Your task to perform on an android device: Clear the cart on target.com. Add "asus rog" to the cart on target.com Image 0: 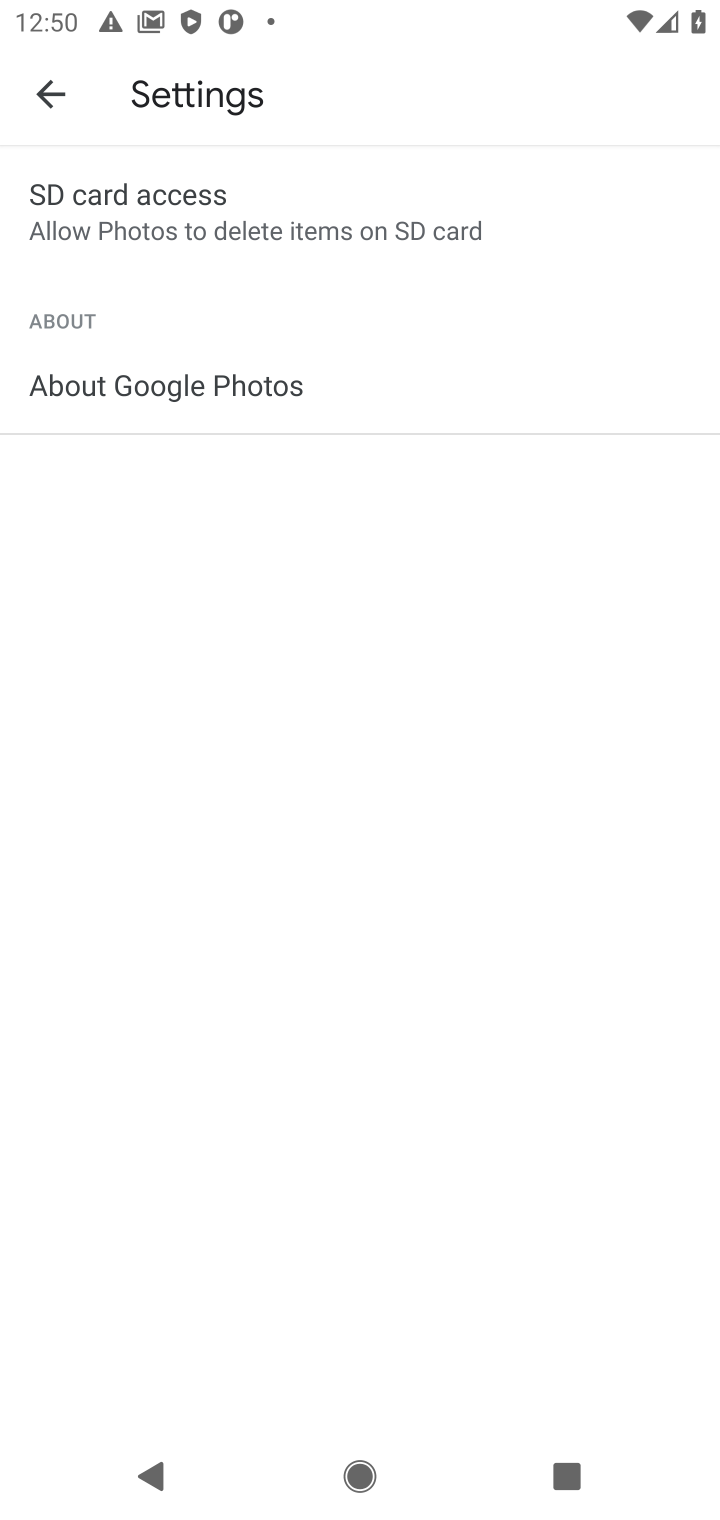
Step 0: press home button
Your task to perform on an android device: Clear the cart on target.com. Add "asus rog" to the cart on target.com Image 1: 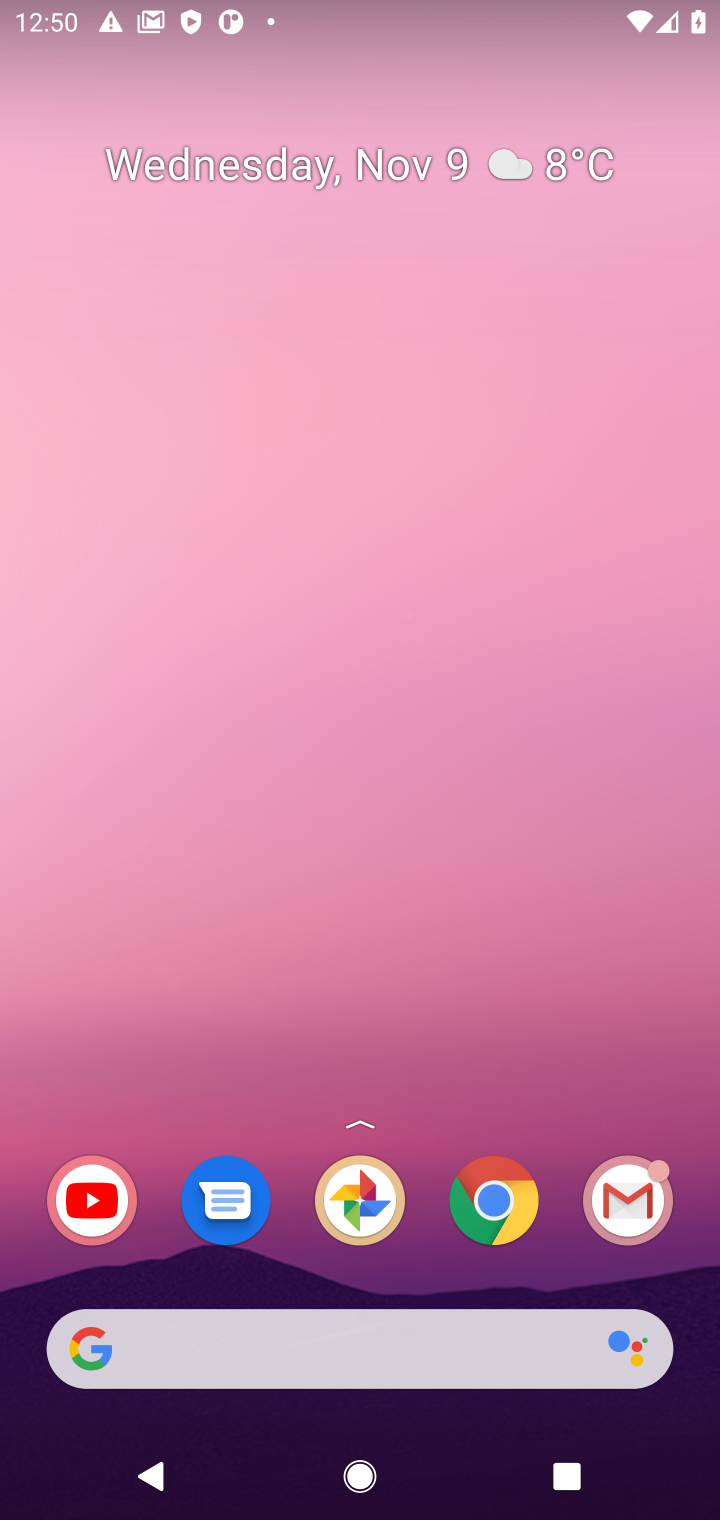
Step 1: click (441, 1322)
Your task to perform on an android device: Clear the cart on target.com. Add "asus rog" to the cart on target.com Image 2: 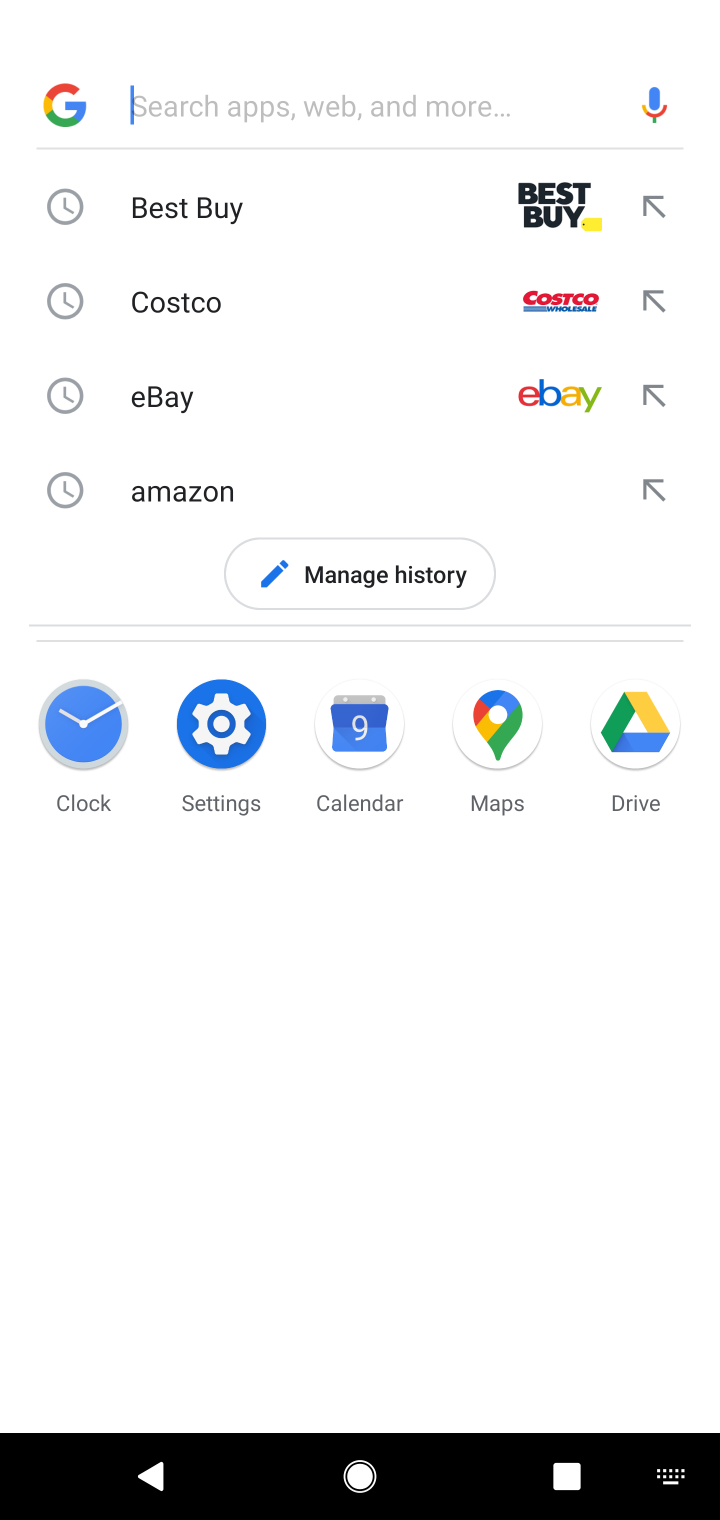
Step 2: type "target"
Your task to perform on an android device: Clear the cart on target.com. Add "asus rog" to the cart on target.com Image 3: 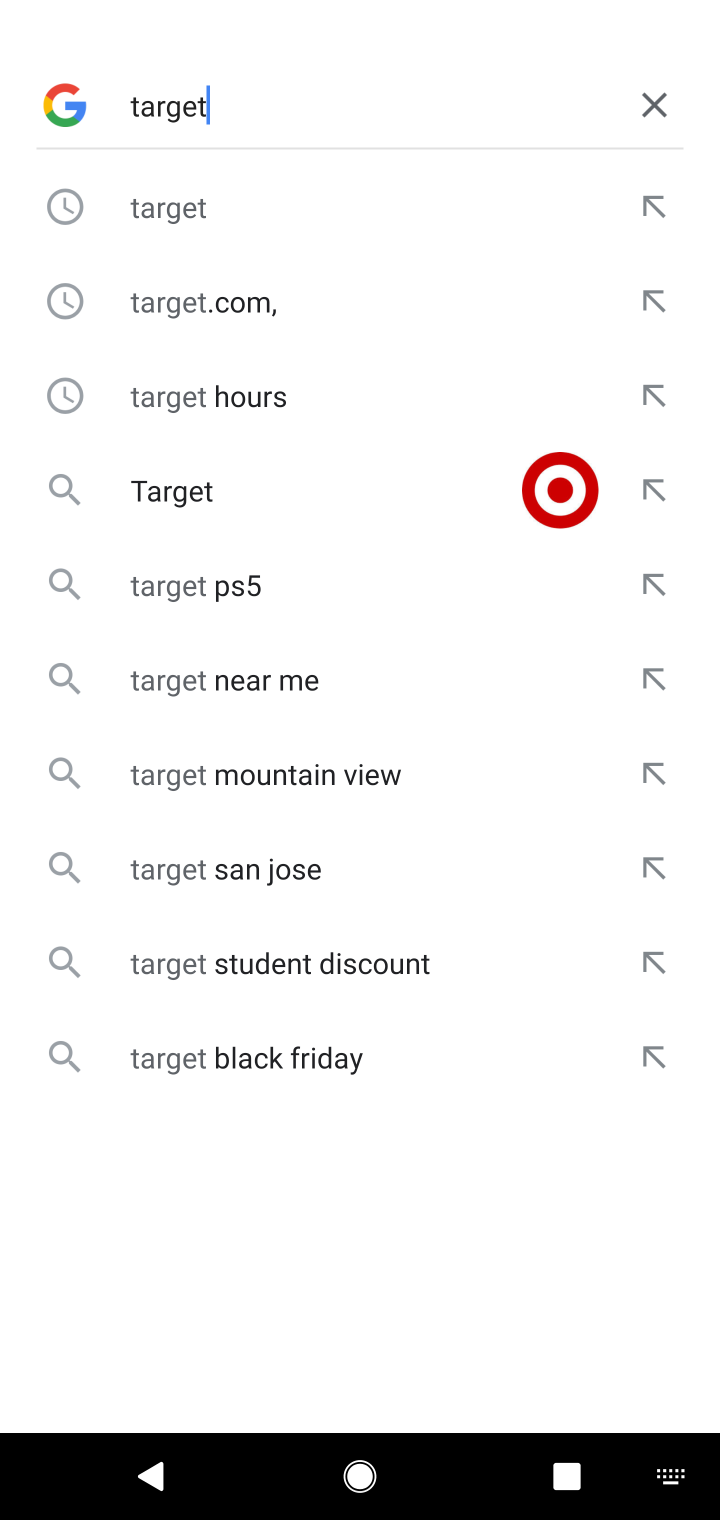
Step 3: click (231, 169)
Your task to perform on an android device: Clear the cart on target.com. Add "asus rog" to the cart on target.com Image 4: 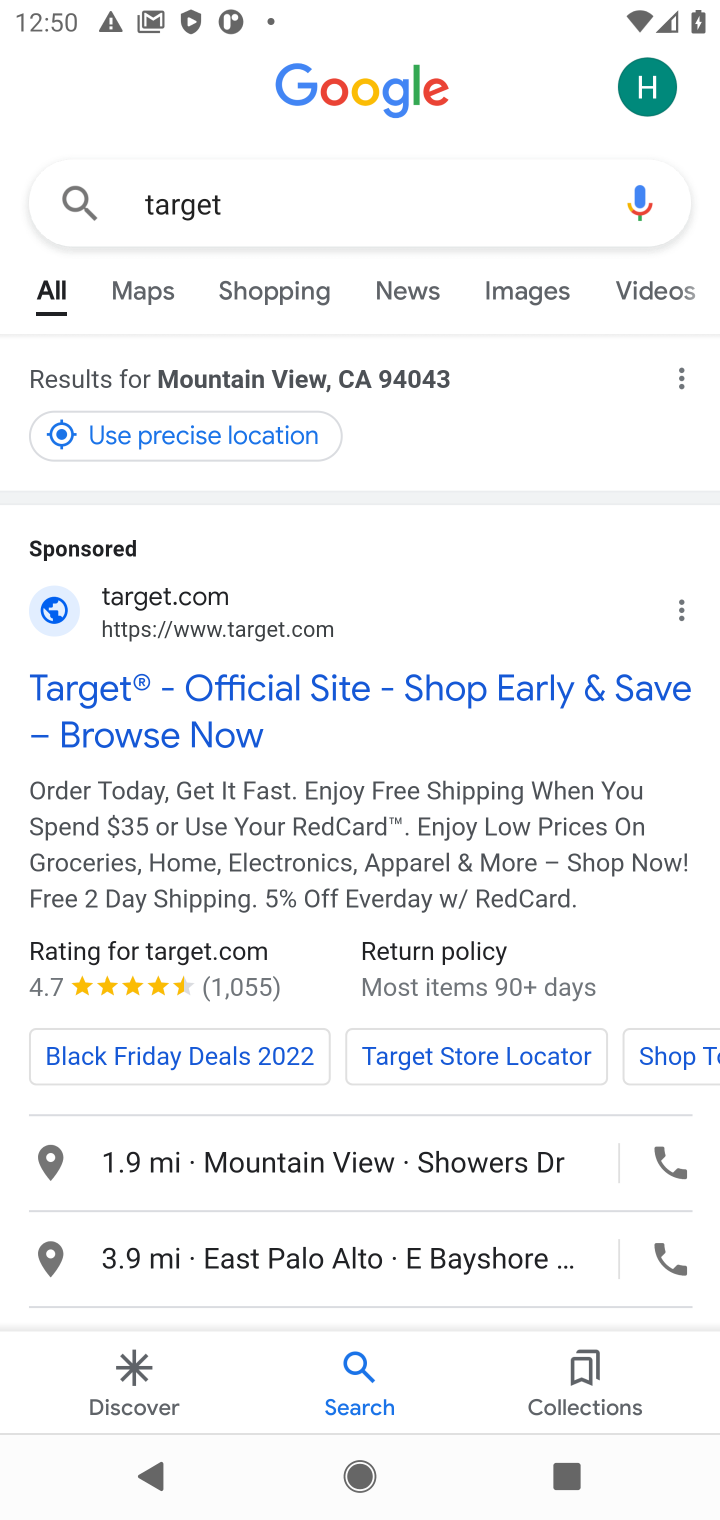
Step 4: click (338, 691)
Your task to perform on an android device: Clear the cart on target.com. Add "asus rog" to the cart on target.com Image 5: 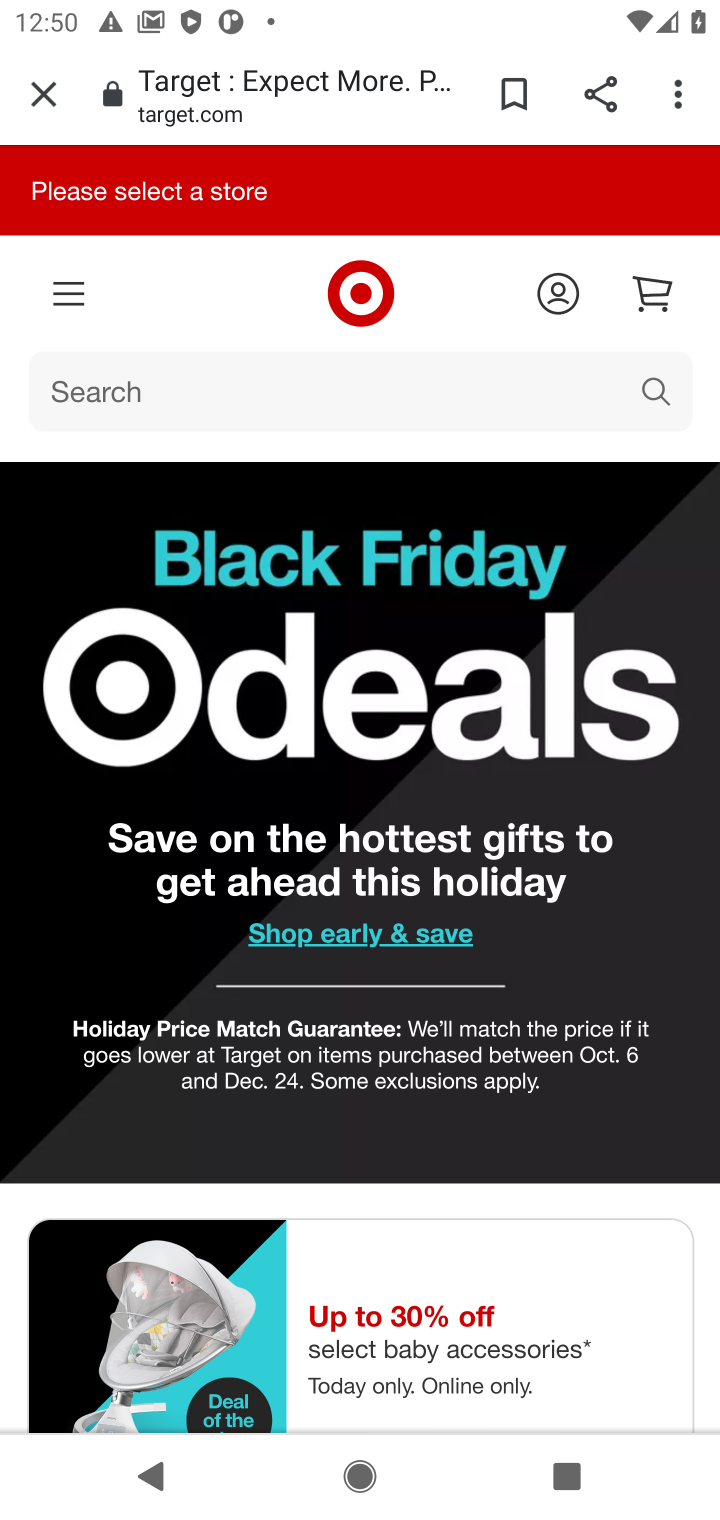
Step 5: click (291, 394)
Your task to perform on an android device: Clear the cart on target.com. Add "asus rog" to the cart on target.com Image 6: 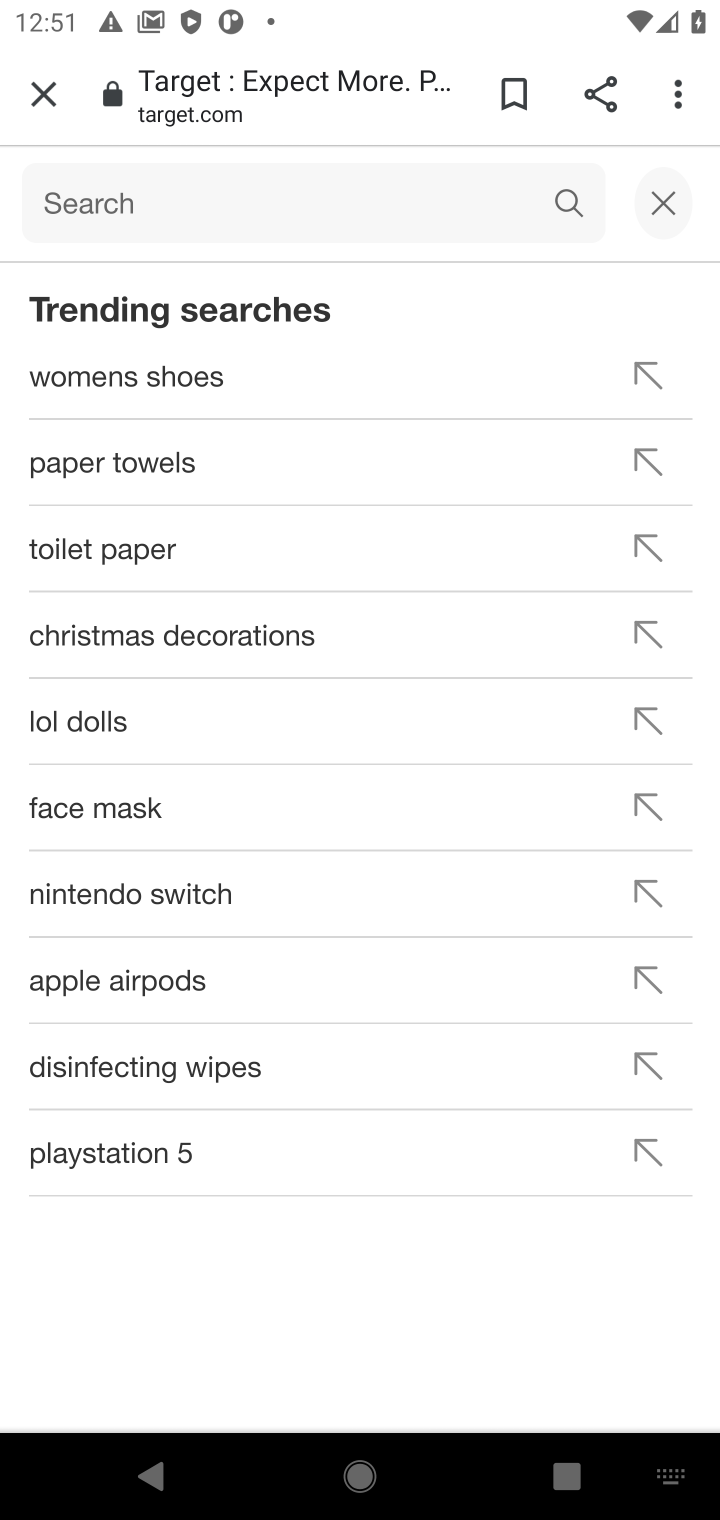
Step 6: task complete